Your task to perform on an android device: Open internet settings Image 0: 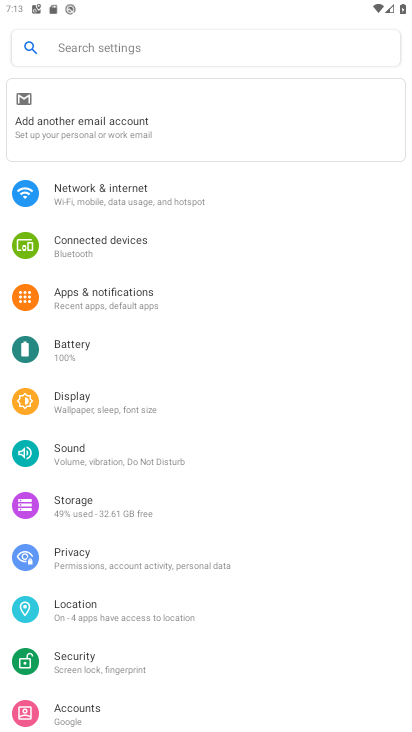
Step 0: press home button
Your task to perform on an android device: Open internet settings Image 1: 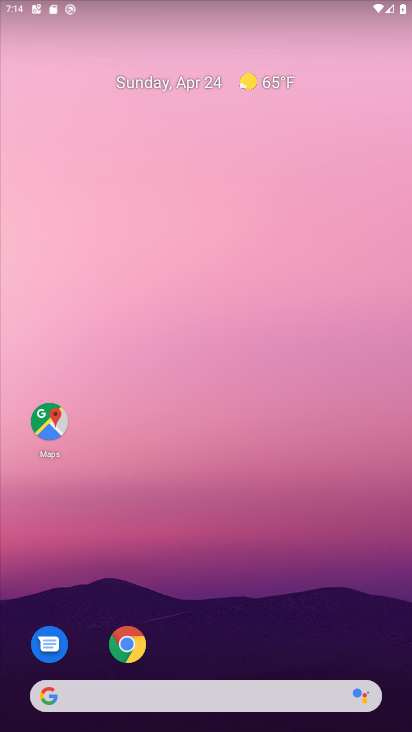
Step 1: drag from (211, 644) to (247, 61)
Your task to perform on an android device: Open internet settings Image 2: 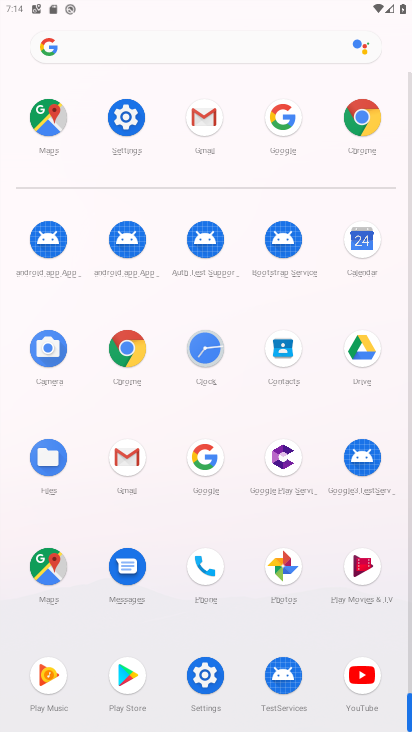
Step 2: click (127, 110)
Your task to perform on an android device: Open internet settings Image 3: 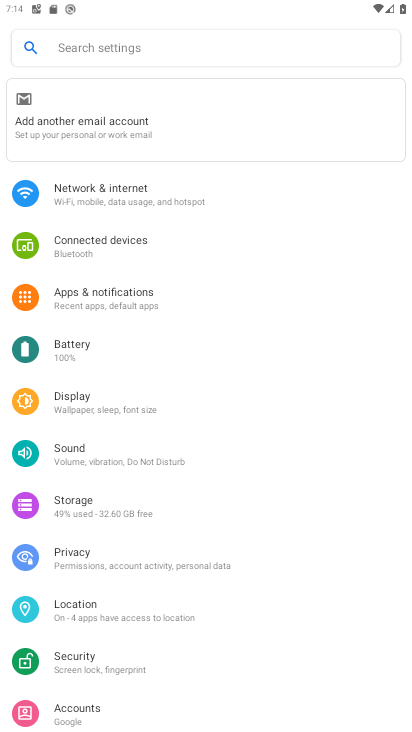
Step 3: click (107, 196)
Your task to perform on an android device: Open internet settings Image 4: 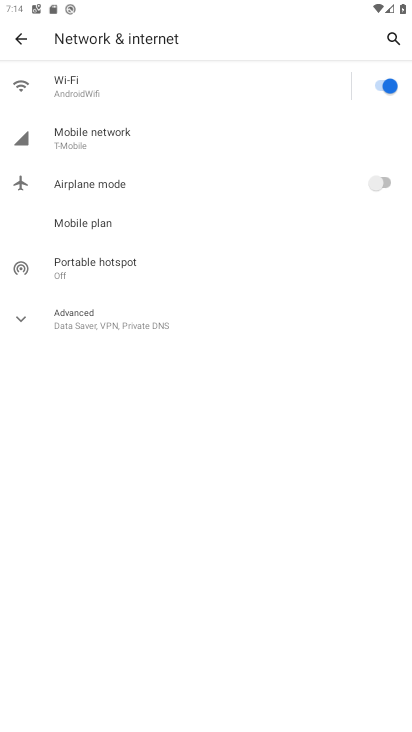
Step 4: click (67, 312)
Your task to perform on an android device: Open internet settings Image 5: 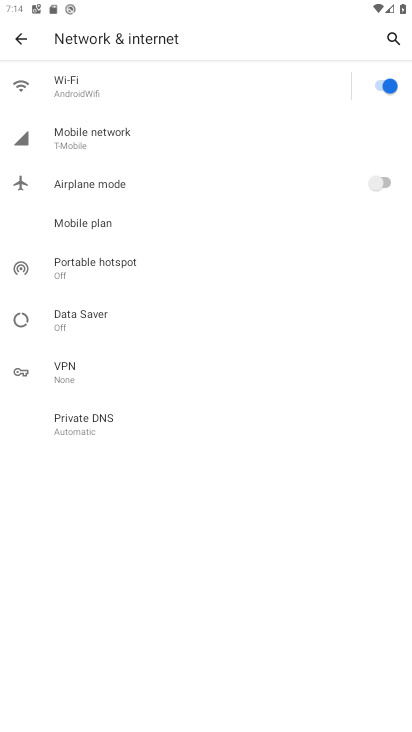
Step 5: task complete